Your task to perform on an android device: turn on location history Image 0: 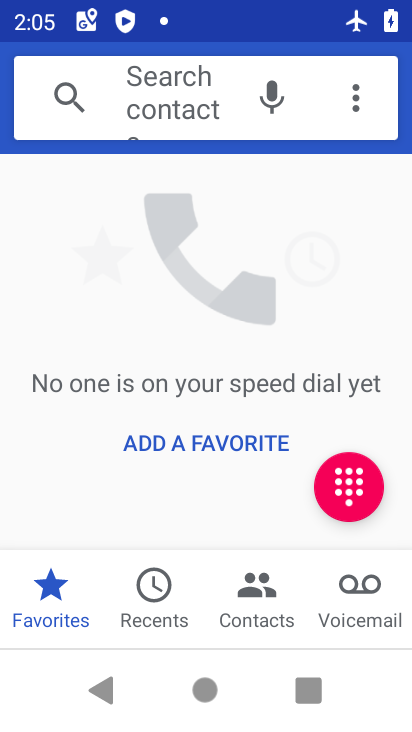
Step 0: press home button
Your task to perform on an android device: turn on location history Image 1: 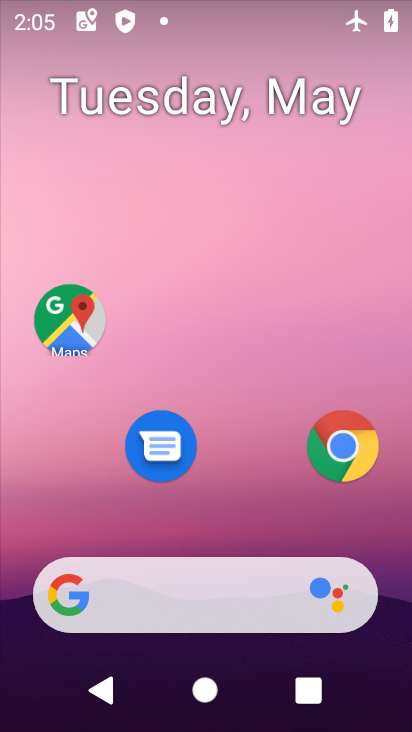
Step 1: drag from (272, 523) to (326, 56)
Your task to perform on an android device: turn on location history Image 2: 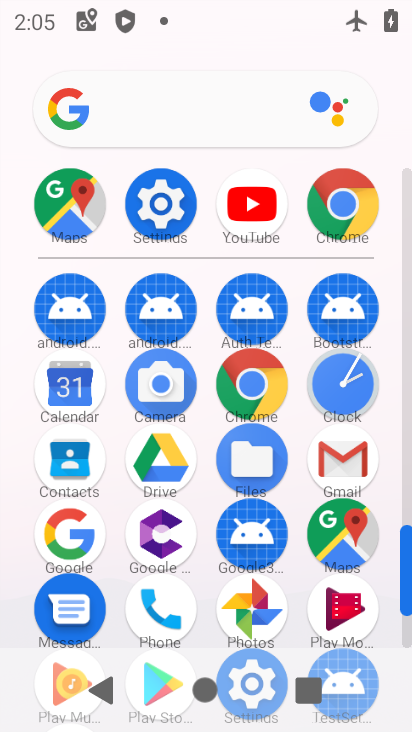
Step 2: click (238, 652)
Your task to perform on an android device: turn on location history Image 3: 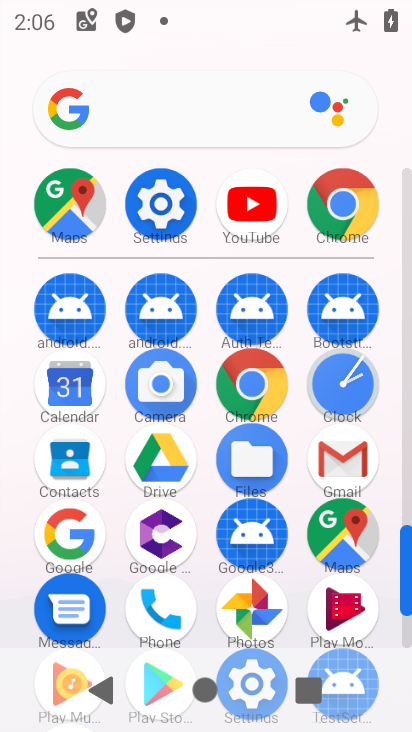
Step 3: click (163, 210)
Your task to perform on an android device: turn on location history Image 4: 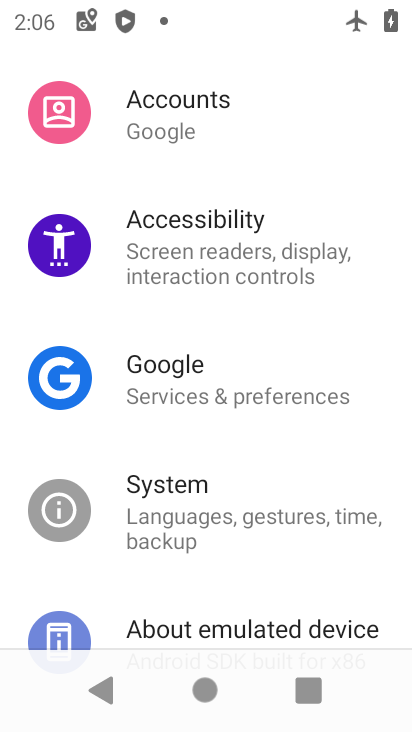
Step 4: drag from (226, 208) to (245, 588)
Your task to perform on an android device: turn on location history Image 5: 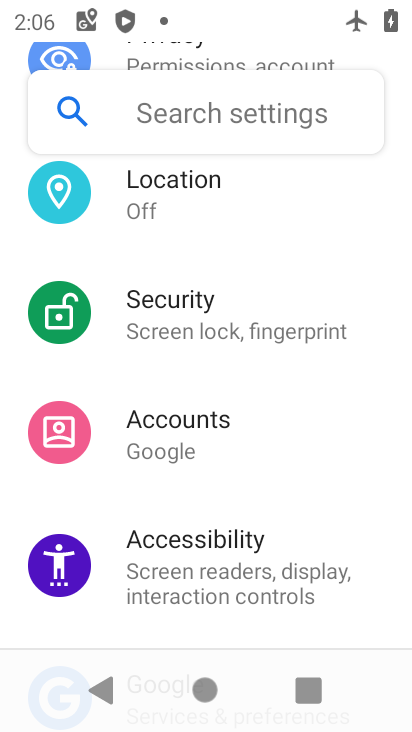
Step 5: click (196, 201)
Your task to perform on an android device: turn on location history Image 6: 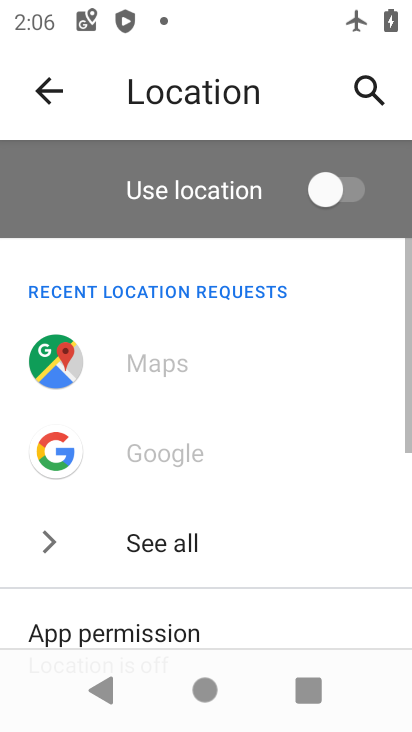
Step 6: click (357, 184)
Your task to perform on an android device: turn on location history Image 7: 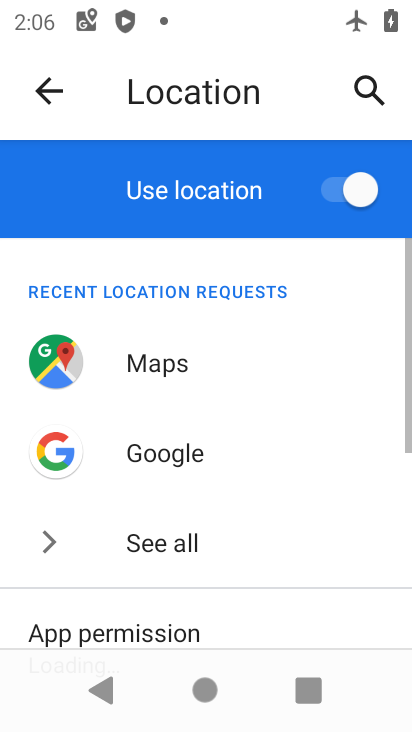
Step 7: task complete